Your task to perform on an android device: refresh tabs in the chrome app Image 0: 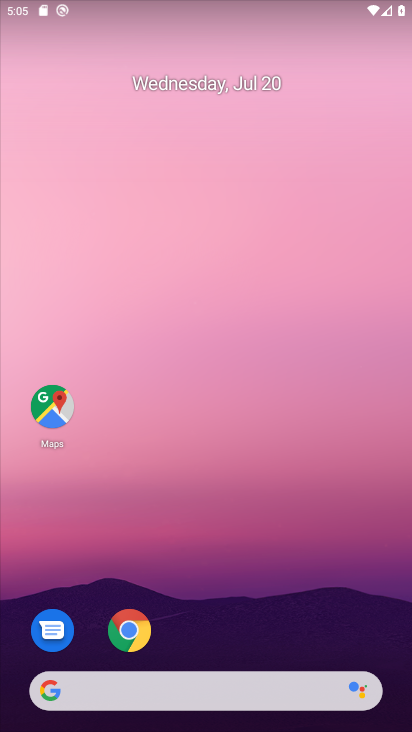
Step 0: press home button
Your task to perform on an android device: refresh tabs in the chrome app Image 1: 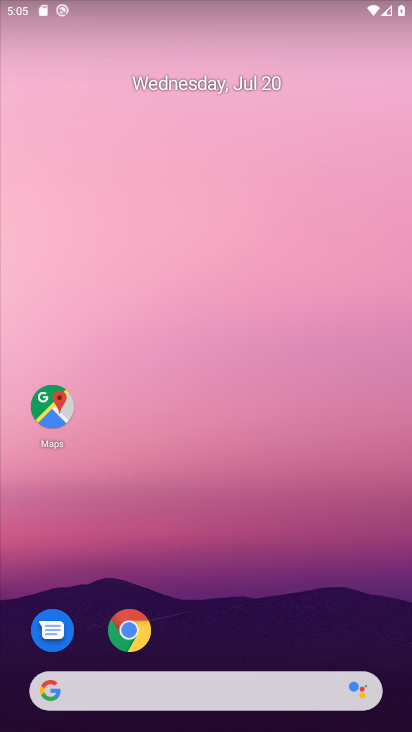
Step 1: drag from (222, 591) to (244, 58)
Your task to perform on an android device: refresh tabs in the chrome app Image 2: 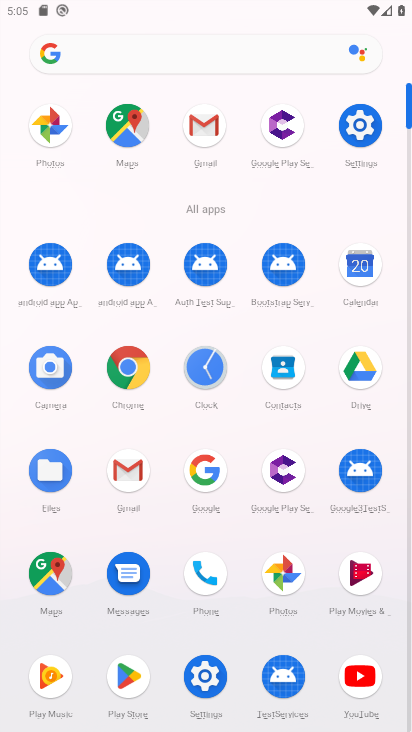
Step 2: click (139, 360)
Your task to perform on an android device: refresh tabs in the chrome app Image 3: 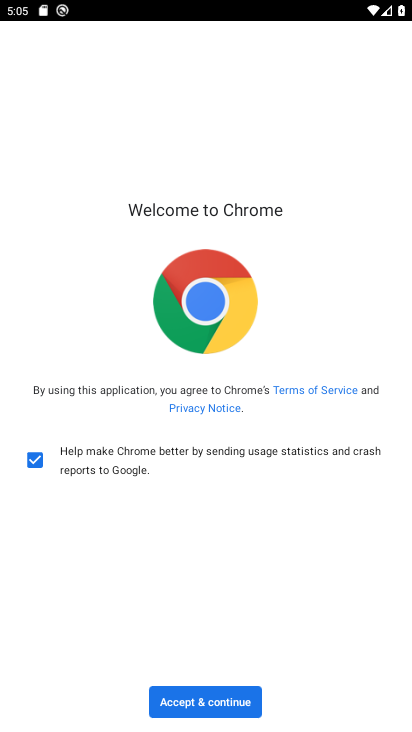
Step 3: click (173, 701)
Your task to perform on an android device: refresh tabs in the chrome app Image 4: 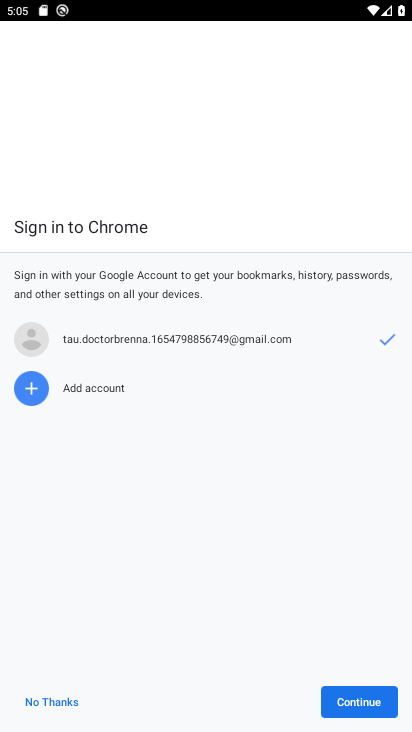
Step 4: click (362, 696)
Your task to perform on an android device: refresh tabs in the chrome app Image 5: 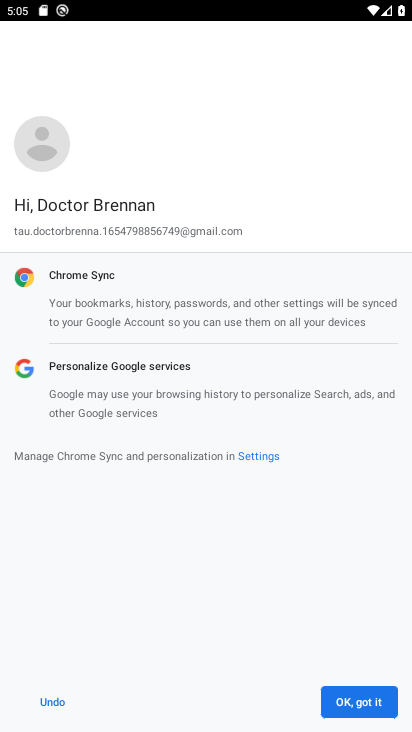
Step 5: click (351, 710)
Your task to perform on an android device: refresh tabs in the chrome app Image 6: 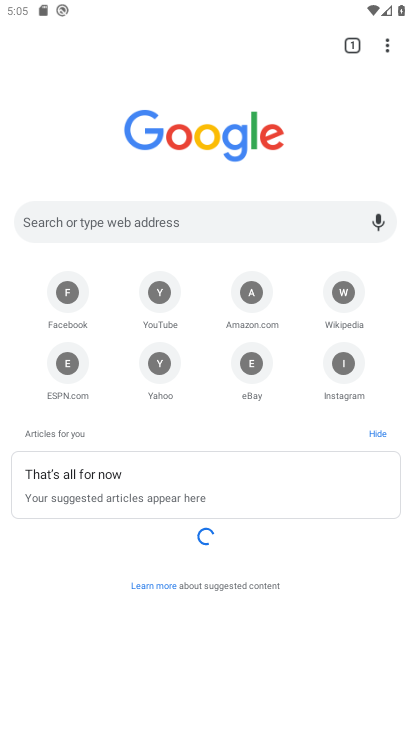
Step 6: click (388, 48)
Your task to perform on an android device: refresh tabs in the chrome app Image 7: 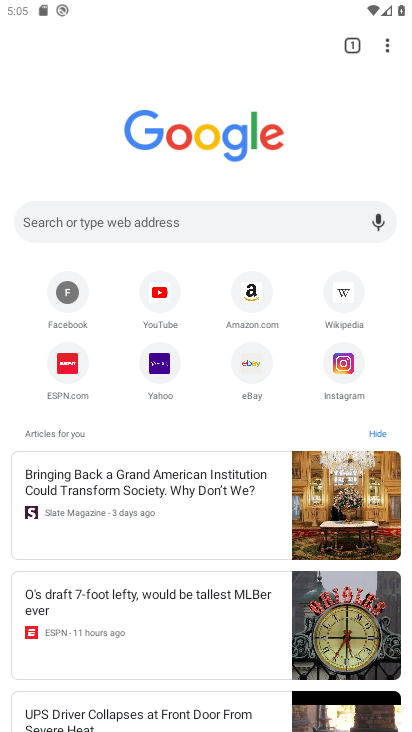
Step 7: task complete